Your task to perform on an android device: turn on showing notifications on the lock screen Image 0: 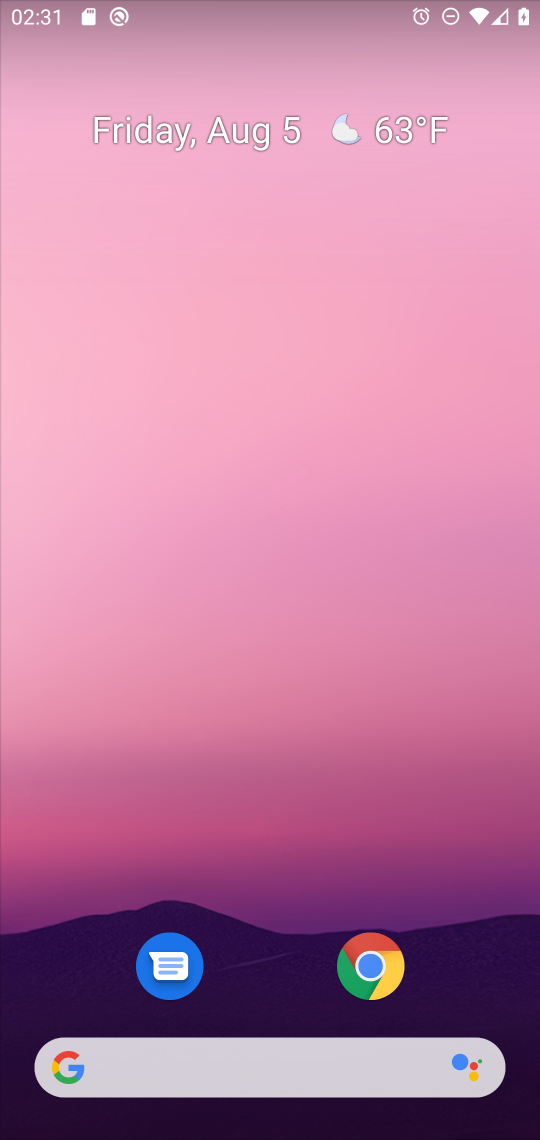
Step 0: drag from (276, 977) to (229, 72)
Your task to perform on an android device: turn on showing notifications on the lock screen Image 1: 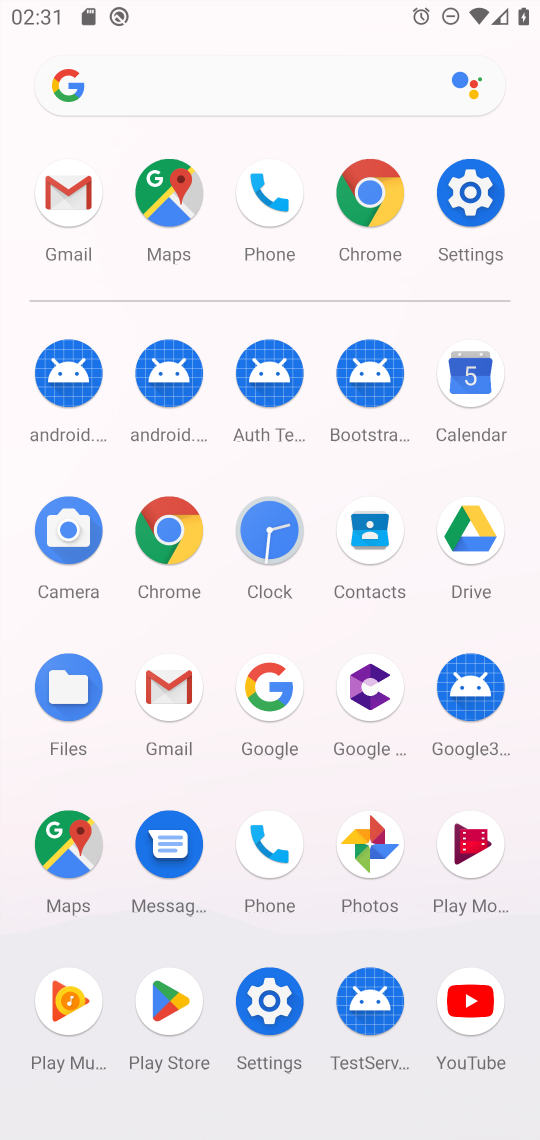
Step 1: click (467, 189)
Your task to perform on an android device: turn on showing notifications on the lock screen Image 2: 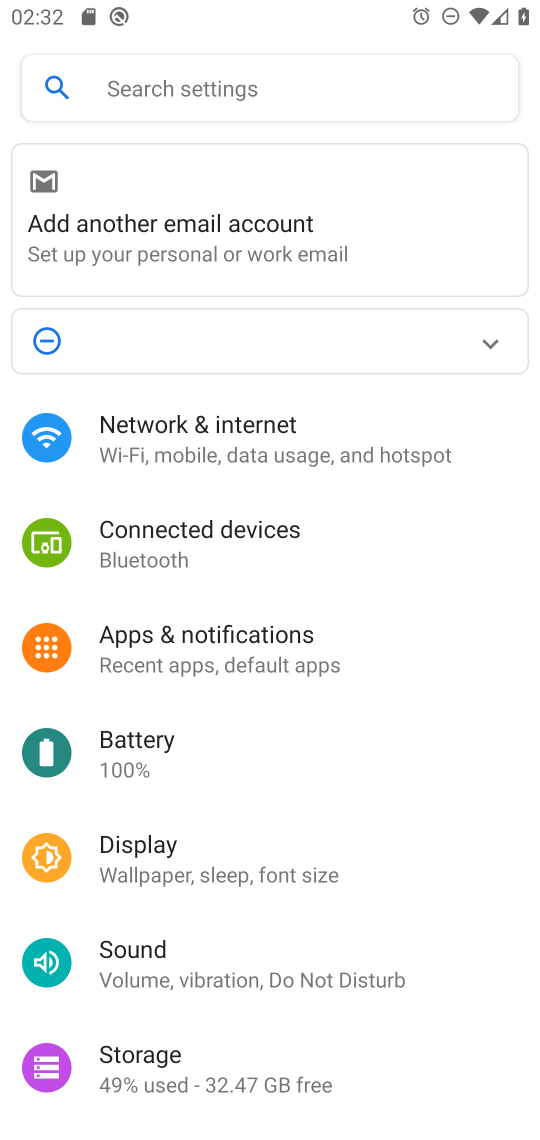
Step 2: click (225, 635)
Your task to perform on an android device: turn on showing notifications on the lock screen Image 3: 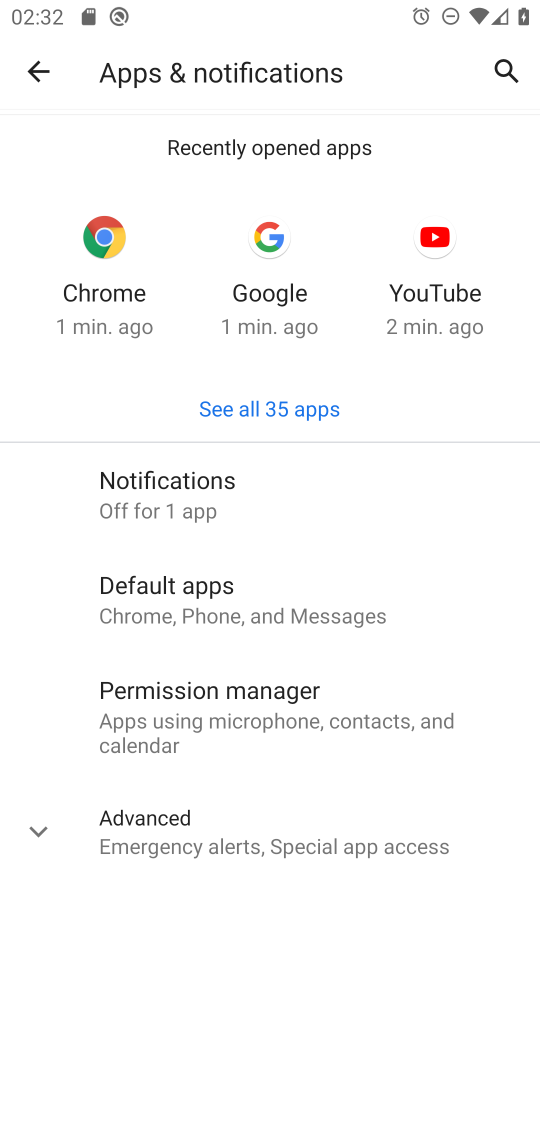
Step 3: click (193, 493)
Your task to perform on an android device: turn on showing notifications on the lock screen Image 4: 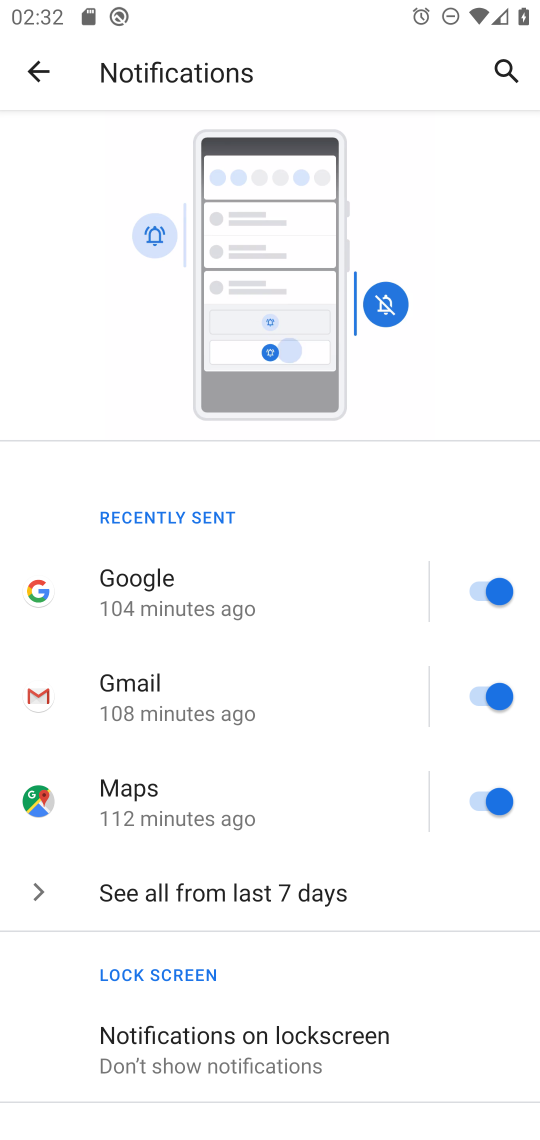
Step 4: drag from (201, 926) to (219, 530)
Your task to perform on an android device: turn on showing notifications on the lock screen Image 5: 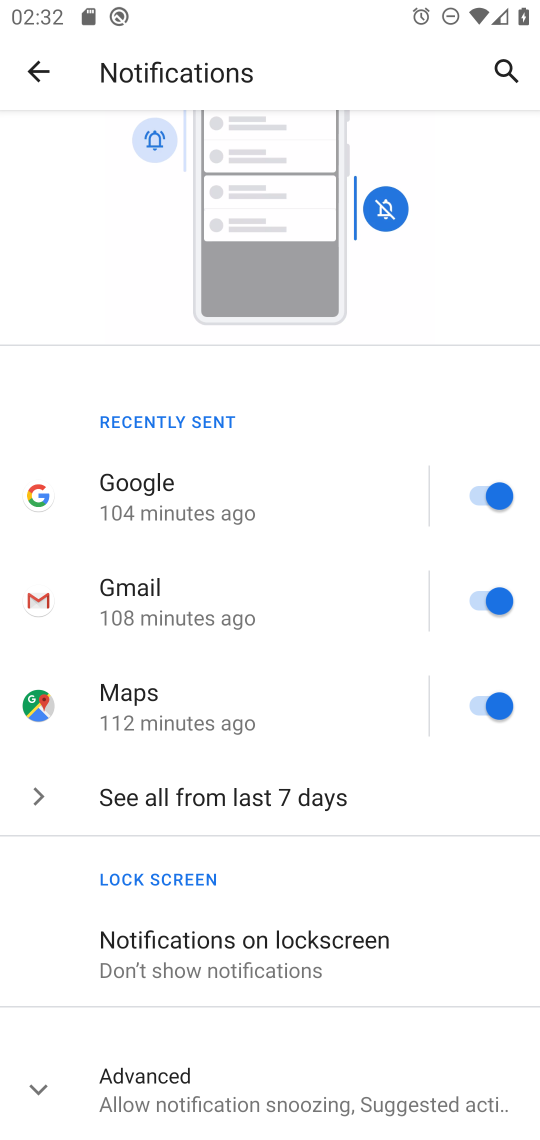
Step 5: click (184, 932)
Your task to perform on an android device: turn on showing notifications on the lock screen Image 6: 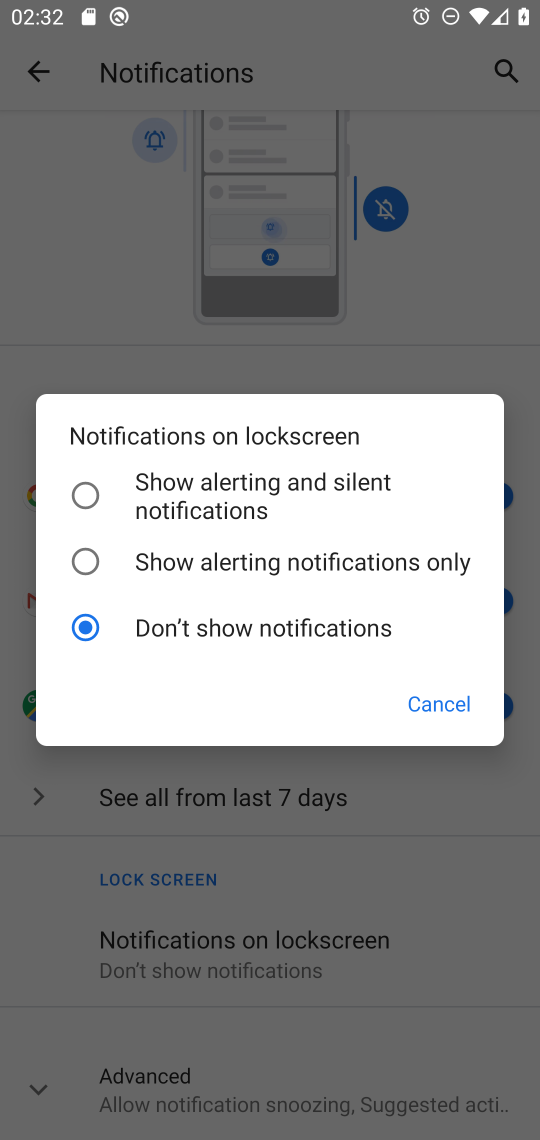
Step 6: click (94, 483)
Your task to perform on an android device: turn on showing notifications on the lock screen Image 7: 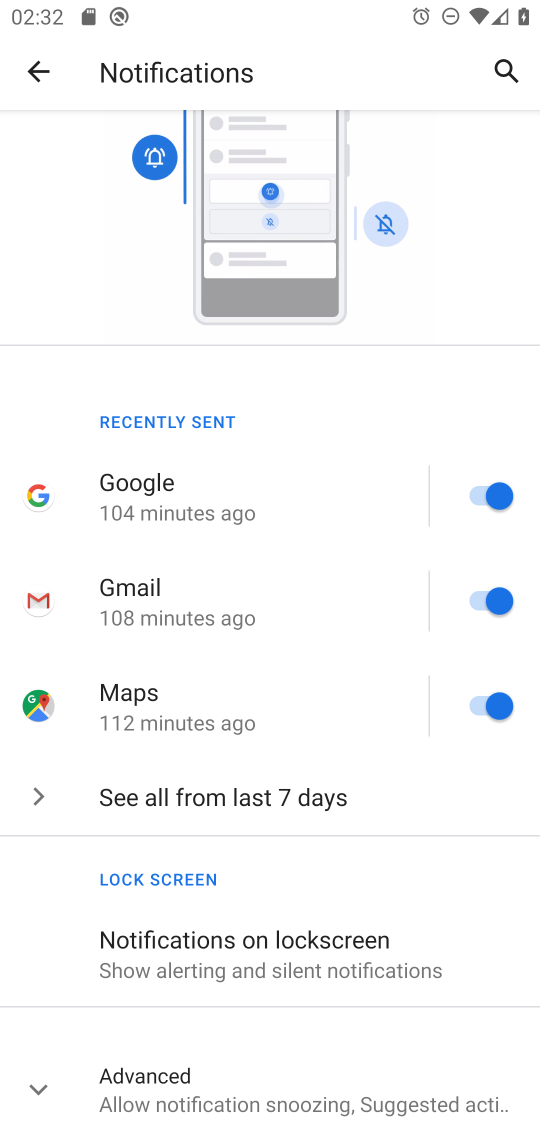
Step 7: task complete